Your task to perform on an android device: turn notification dots off Image 0: 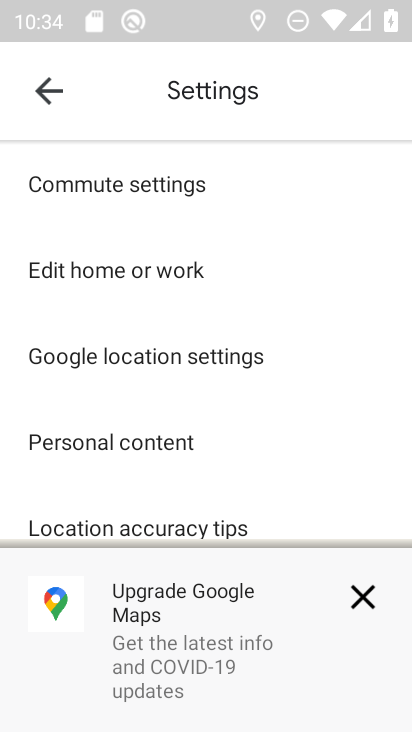
Step 0: press home button
Your task to perform on an android device: turn notification dots off Image 1: 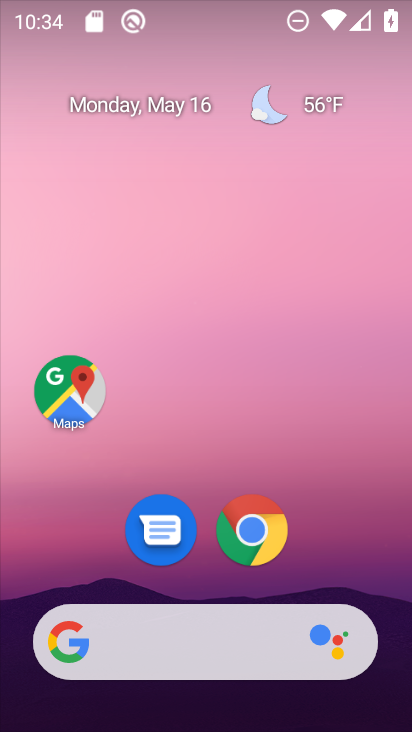
Step 1: drag from (378, 539) to (378, 129)
Your task to perform on an android device: turn notification dots off Image 2: 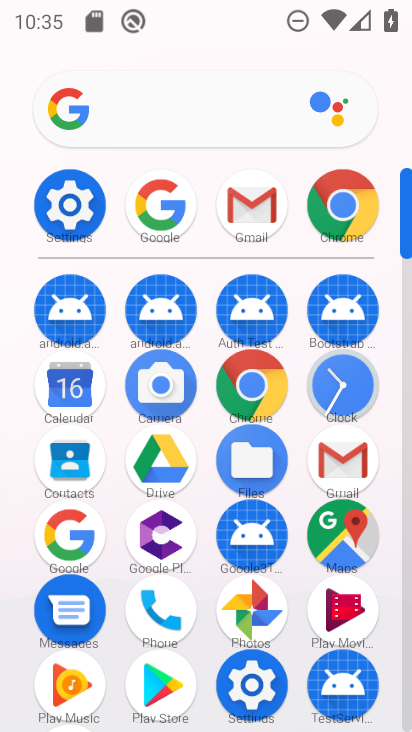
Step 2: click (59, 214)
Your task to perform on an android device: turn notification dots off Image 3: 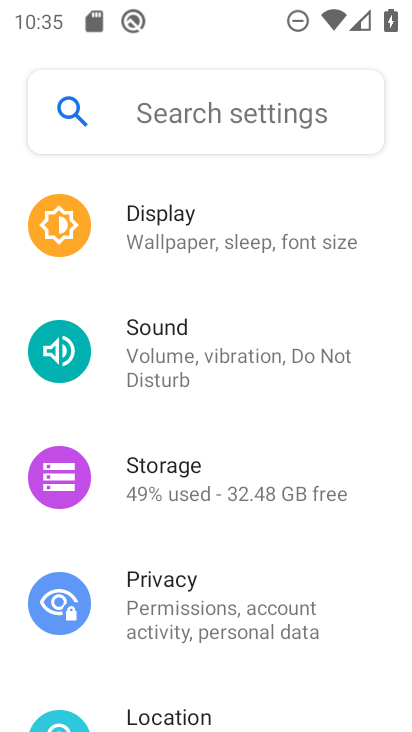
Step 3: drag from (281, 616) to (268, 411)
Your task to perform on an android device: turn notification dots off Image 4: 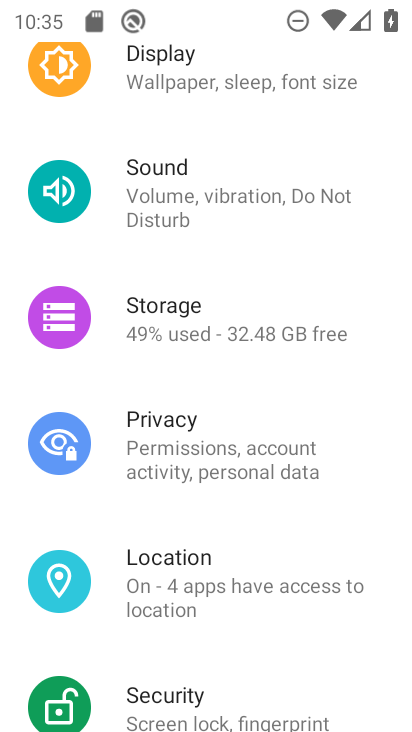
Step 4: drag from (280, 654) to (294, 446)
Your task to perform on an android device: turn notification dots off Image 5: 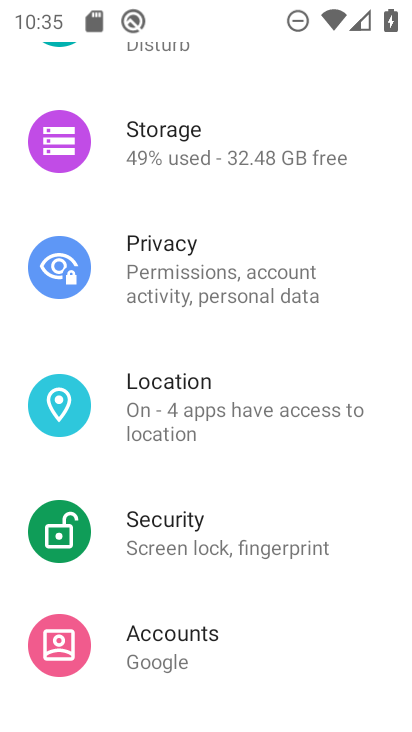
Step 5: drag from (309, 673) to (312, 468)
Your task to perform on an android device: turn notification dots off Image 6: 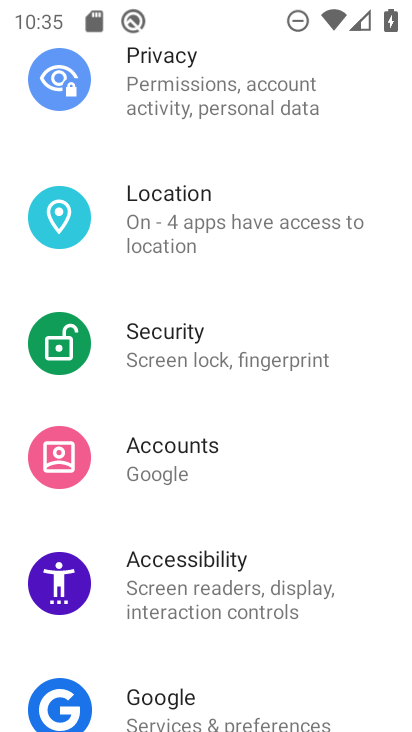
Step 6: drag from (299, 689) to (302, 497)
Your task to perform on an android device: turn notification dots off Image 7: 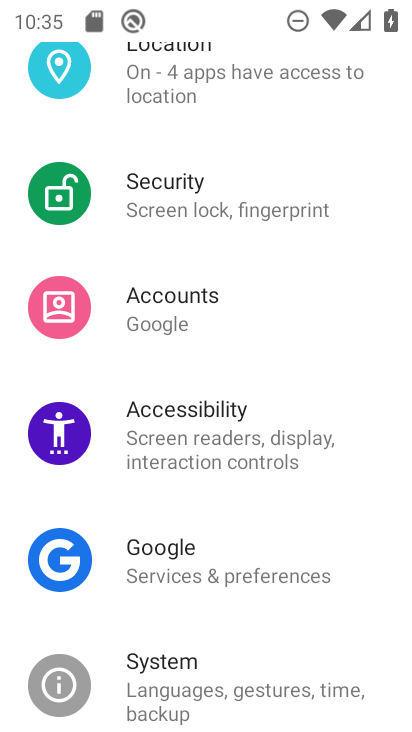
Step 7: drag from (284, 635) to (290, 514)
Your task to perform on an android device: turn notification dots off Image 8: 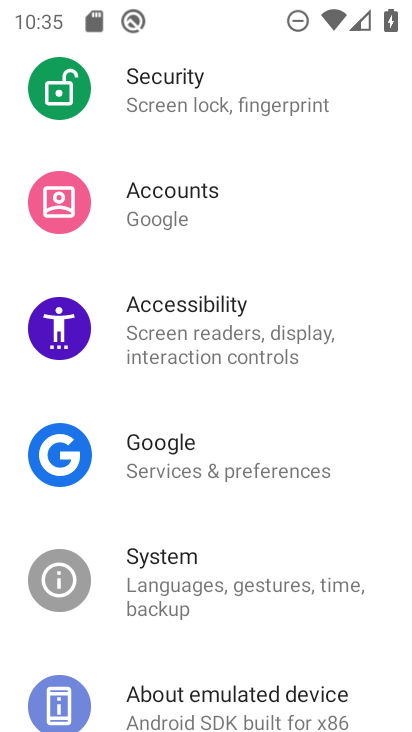
Step 8: drag from (281, 676) to (302, 541)
Your task to perform on an android device: turn notification dots off Image 9: 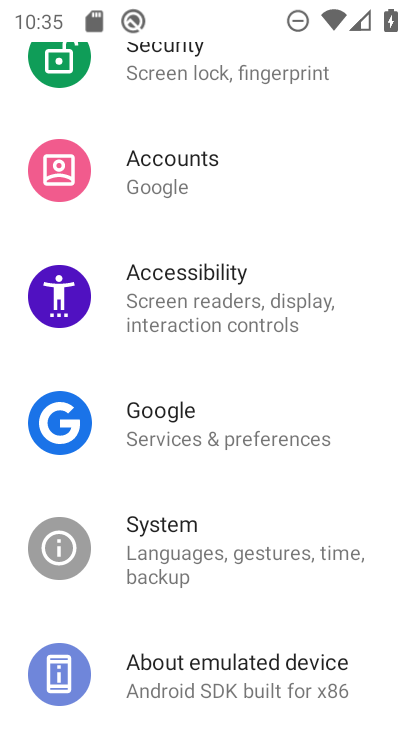
Step 9: drag from (350, 377) to (355, 549)
Your task to perform on an android device: turn notification dots off Image 10: 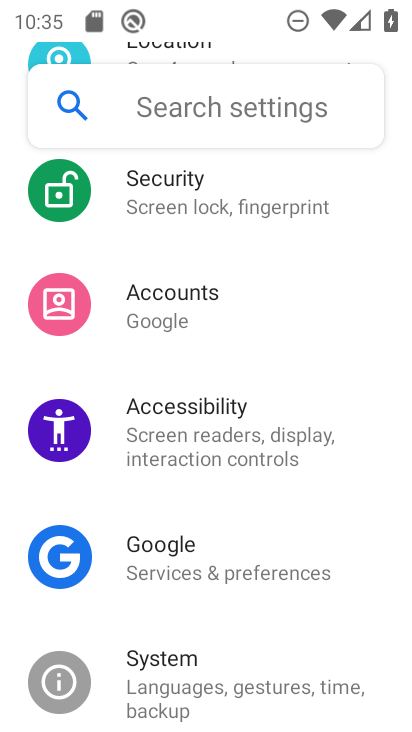
Step 10: drag from (346, 391) to (338, 487)
Your task to perform on an android device: turn notification dots off Image 11: 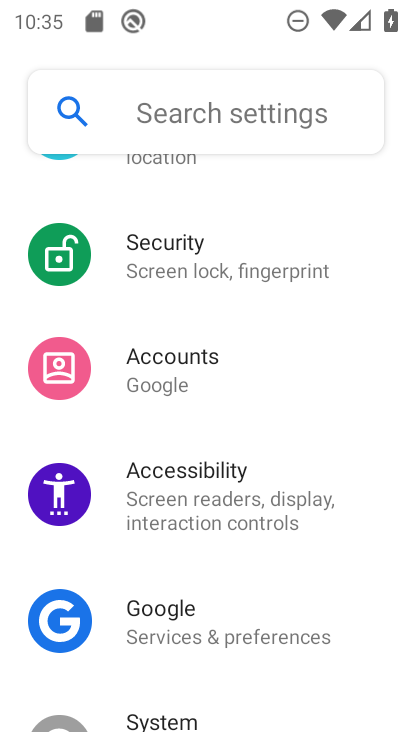
Step 11: drag from (348, 364) to (354, 505)
Your task to perform on an android device: turn notification dots off Image 12: 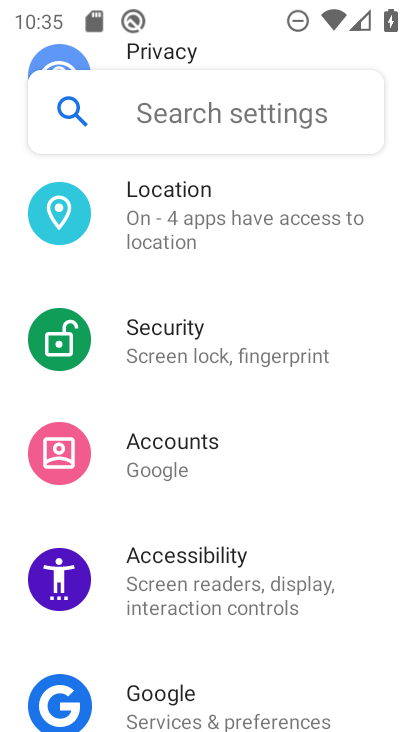
Step 12: drag from (326, 476) to (335, 608)
Your task to perform on an android device: turn notification dots off Image 13: 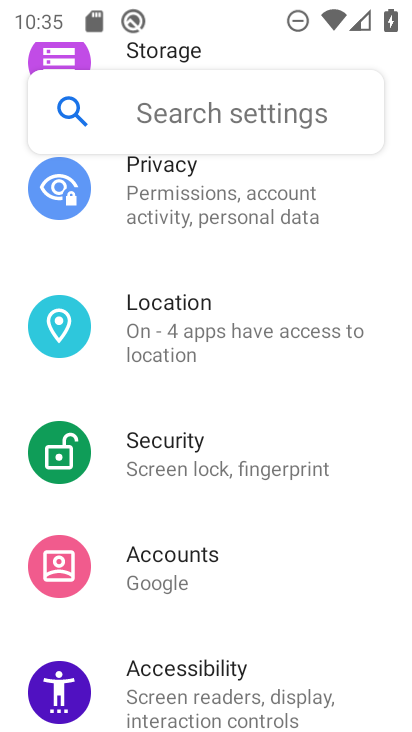
Step 13: drag from (324, 404) to (331, 570)
Your task to perform on an android device: turn notification dots off Image 14: 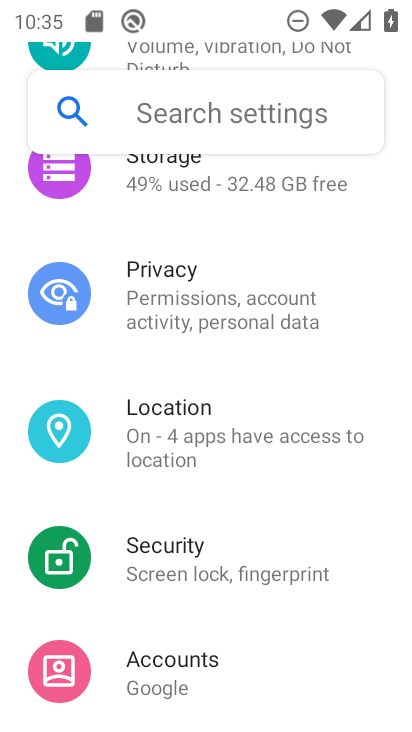
Step 14: drag from (359, 307) to (342, 520)
Your task to perform on an android device: turn notification dots off Image 15: 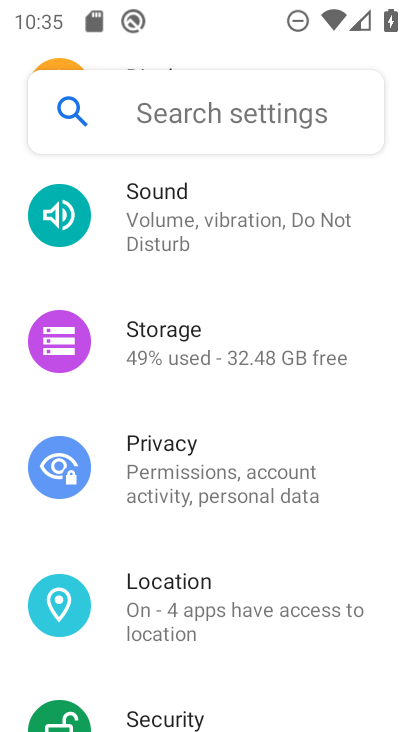
Step 15: drag from (366, 296) to (354, 550)
Your task to perform on an android device: turn notification dots off Image 16: 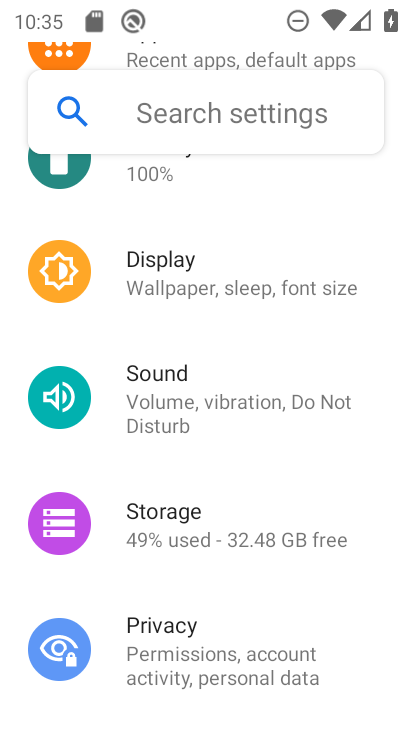
Step 16: drag from (335, 346) to (311, 534)
Your task to perform on an android device: turn notification dots off Image 17: 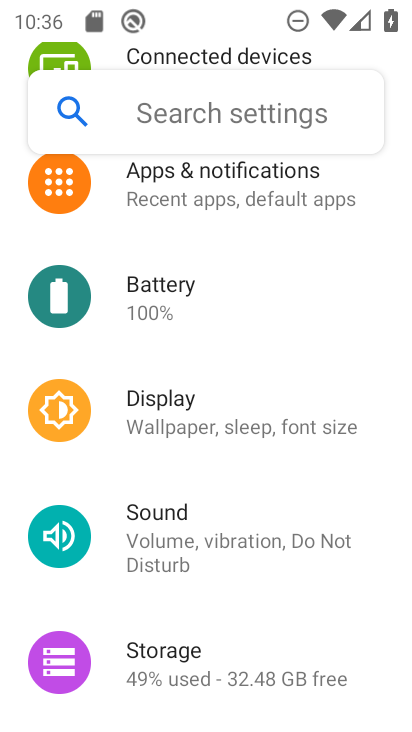
Step 17: drag from (340, 349) to (320, 525)
Your task to perform on an android device: turn notification dots off Image 18: 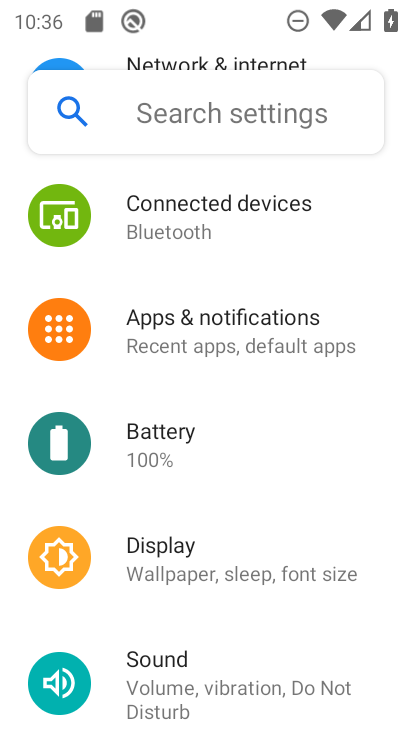
Step 18: drag from (332, 410) to (330, 533)
Your task to perform on an android device: turn notification dots off Image 19: 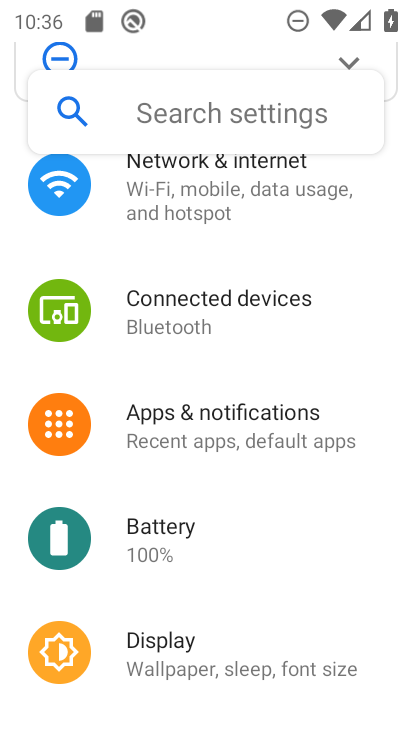
Step 19: drag from (355, 337) to (331, 522)
Your task to perform on an android device: turn notification dots off Image 20: 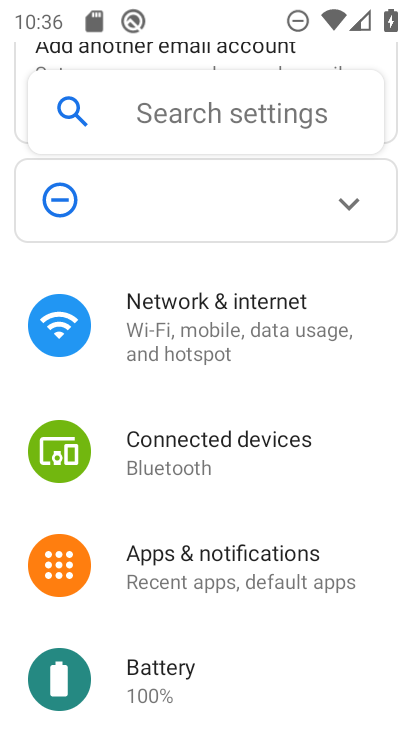
Step 20: click (302, 568)
Your task to perform on an android device: turn notification dots off Image 21: 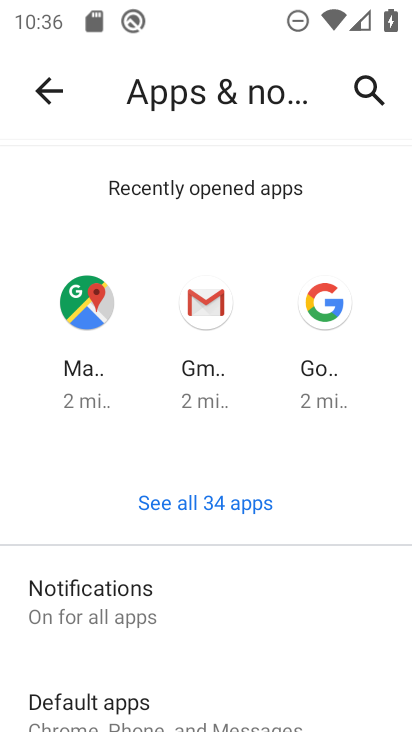
Step 21: task complete